Your task to perform on an android device: turn on the 24-hour format for clock Image 0: 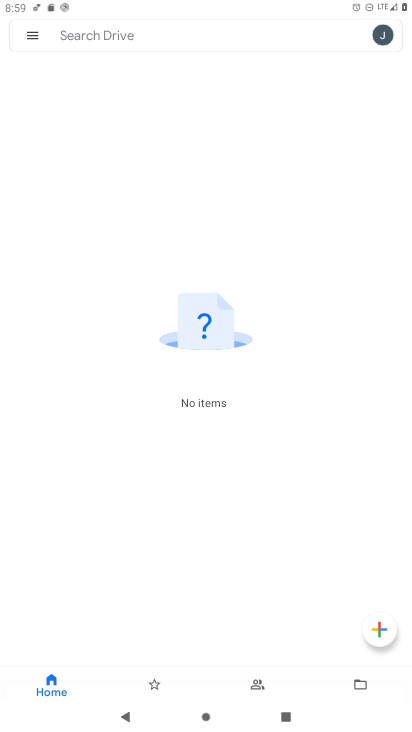
Step 0: press home button
Your task to perform on an android device: turn on the 24-hour format for clock Image 1: 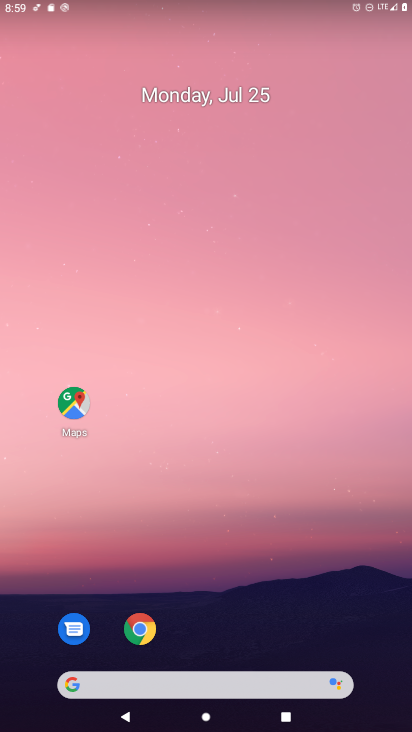
Step 1: drag from (190, 681) to (239, 35)
Your task to perform on an android device: turn on the 24-hour format for clock Image 2: 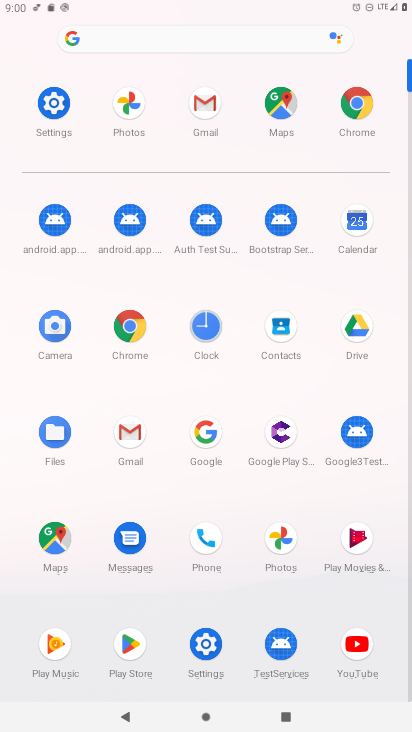
Step 2: click (206, 325)
Your task to perform on an android device: turn on the 24-hour format for clock Image 3: 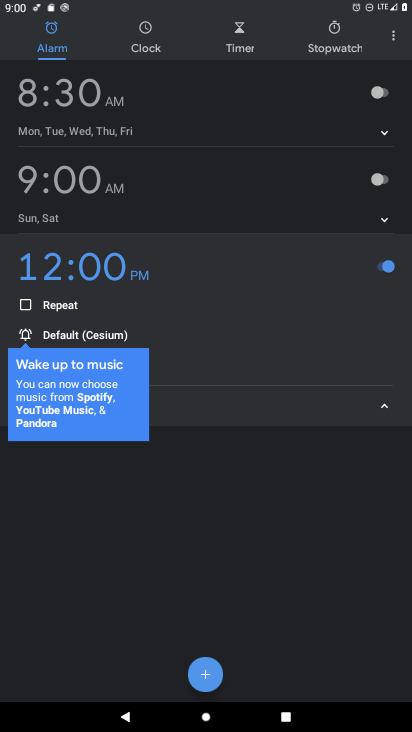
Step 3: click (392, 36)
Your task to perform on an android device: turn on the 24-hour format for clock Image 4: 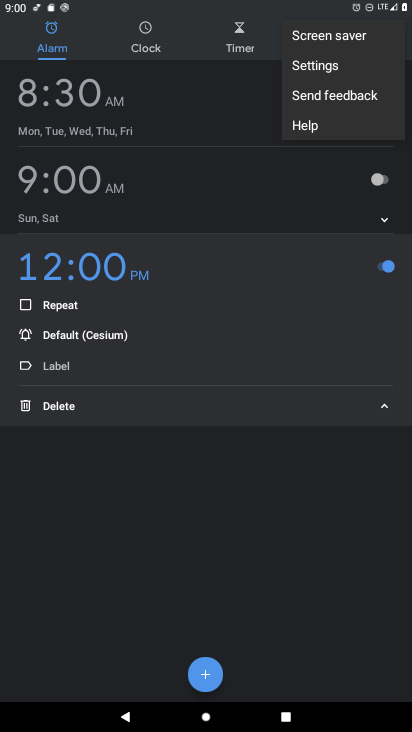
Step 4: click (328, 66)
Your task to perform on an android device: turn on the 24-hour format for clock Image 5: 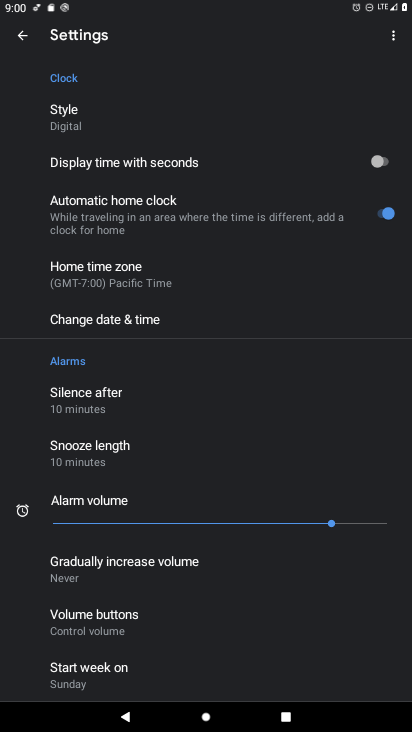
Step 5: click (109, 327)
Your task to perform on an android device: turn on the 24-hour format for clock Image 6: 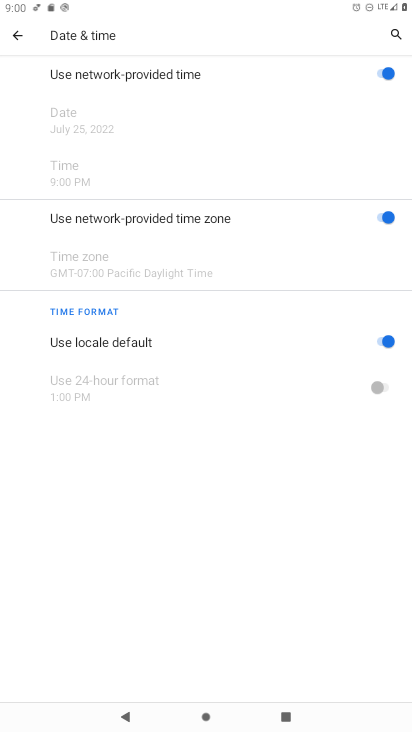
Step 6: click (373, 343)
Your task to perform on an android device: turn on the 24-hour format for clock Image 7: 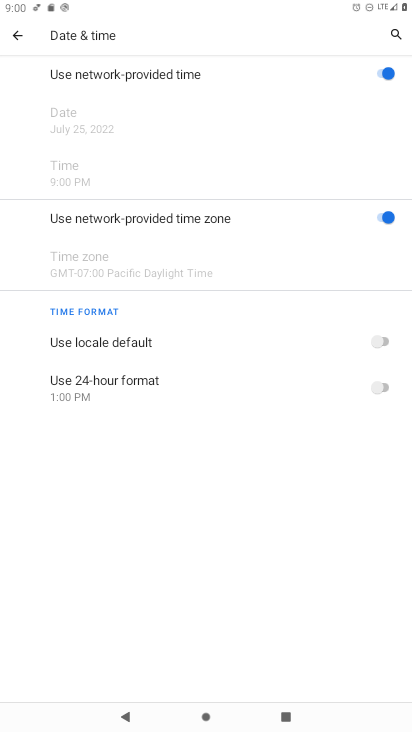
Step 7: click (383, 389)
Your task to perform on an android device: turn on the 24-hour format for clock Image 8: 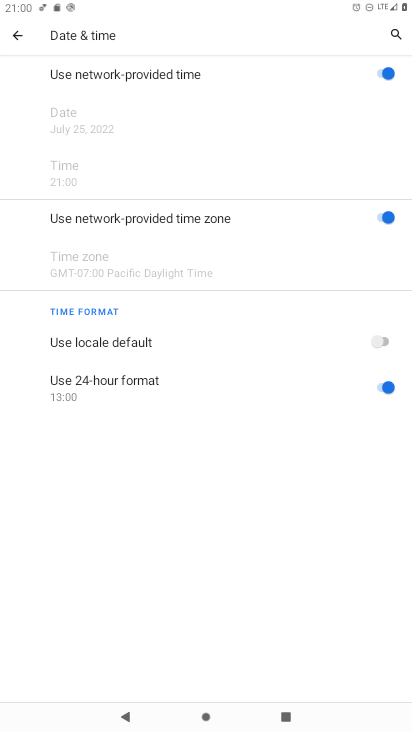
Step 8: task complete